Your task to perform on an android device: Open the phone app and click the voicemail tab. Image 0: 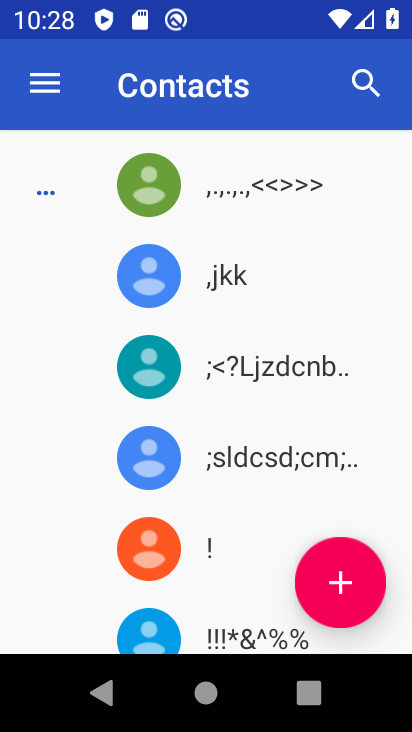
Step 0: press home button
Your task to perform on an android device: Open the phone app and click the voicemail tab. Image 1: 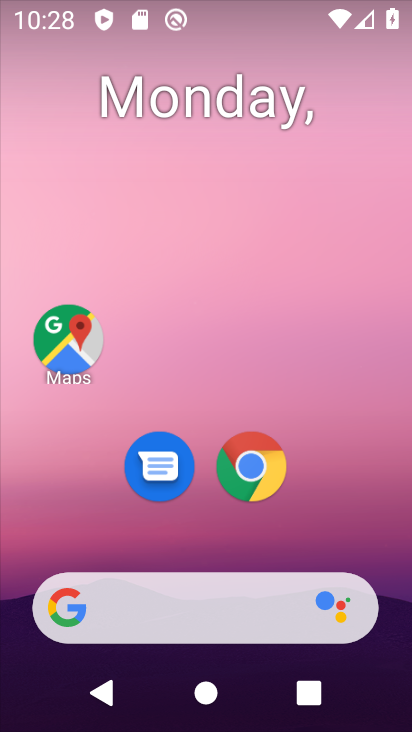
Step 1: drag from (332, 463) to (304, 25)
Your task to perform on an android device: Open the phone app and click the voicemail tab. Image 2: 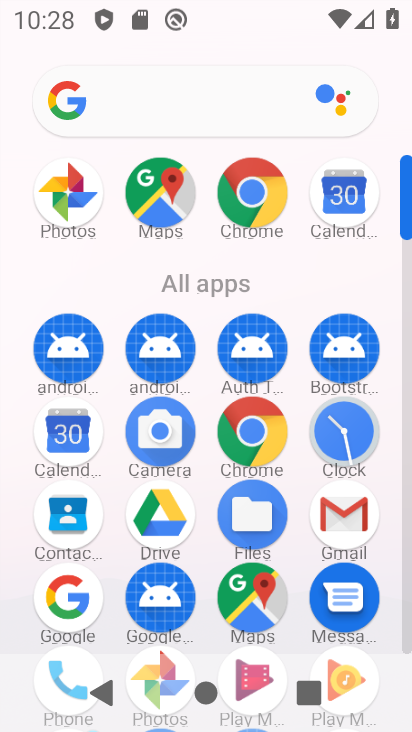
Step 2: click (72, 678)
Your task to perform on an android device: Open the phone app and click the voicemail tab. Image 3: 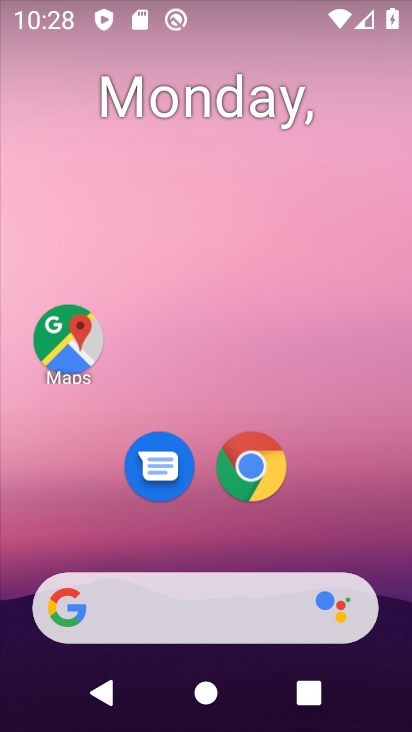
Step 3: press home button
Your task to perform on an android device: Open the phone app and click the voicemail tab. Image 4: 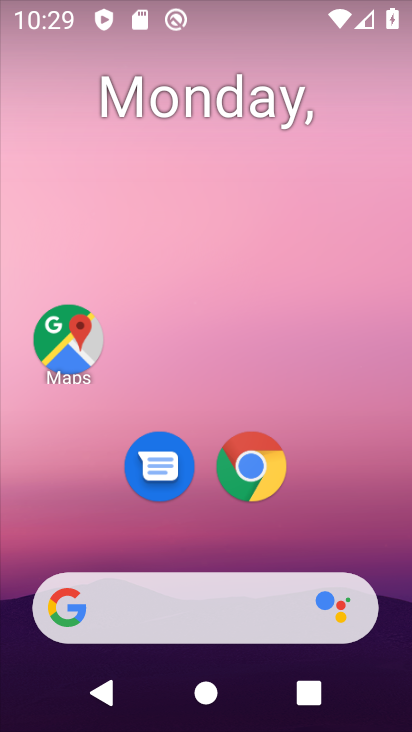
Step 4: drag from (363, 411) to (406, 108)
Your task to perform on an android device: Open the phone app and click the voicemail tab. Image 5: 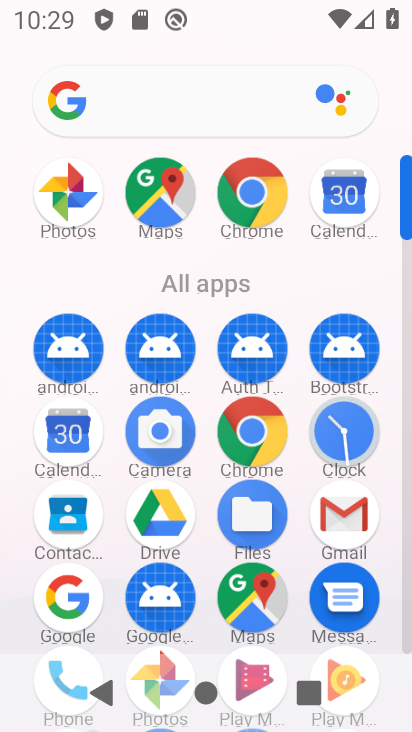
Step 5: click (58, 670)
Your task to perform on an android device: Open the phone app and click the voicemail tab. Image 6: 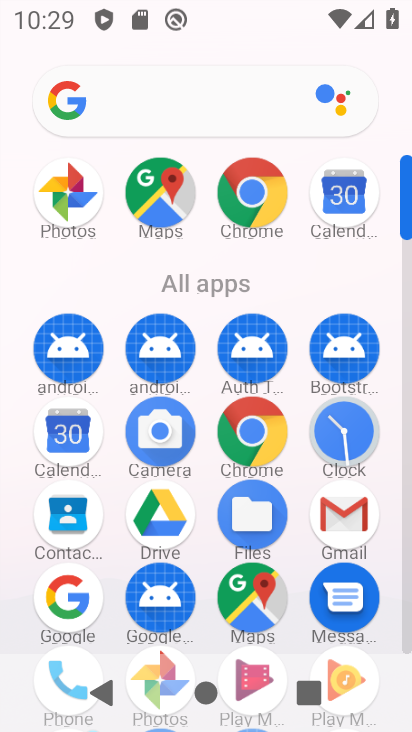
Step 6: drag from (16, 604) to (73, 199)
Your task to perform on an android device: Open the phone app and click the voicemail tab. Image 7: 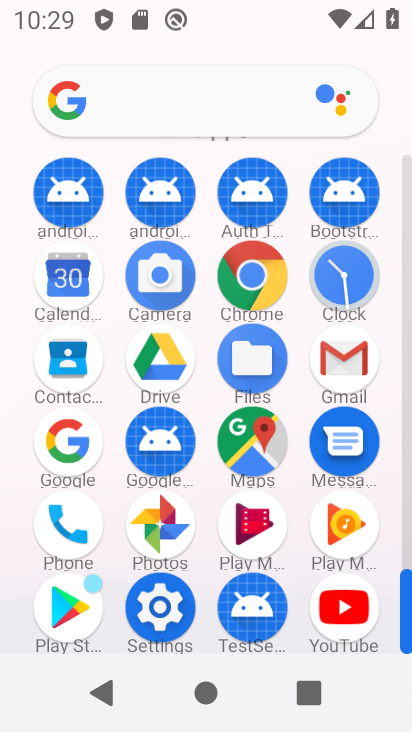
Step 7: click (69, 514)
Your task to perform on an android device: Open the phone app and click the voicemail tab. Image 8: 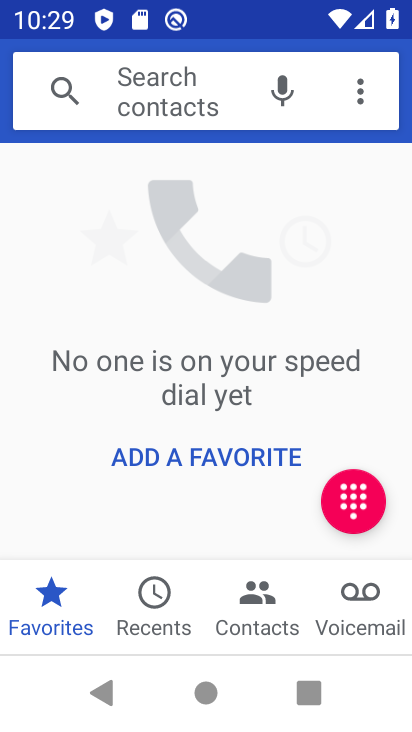
Step 8: click (346, 598)
Your task to perform on an android device: Open the phone app and click the voicemail tab. Image 9: 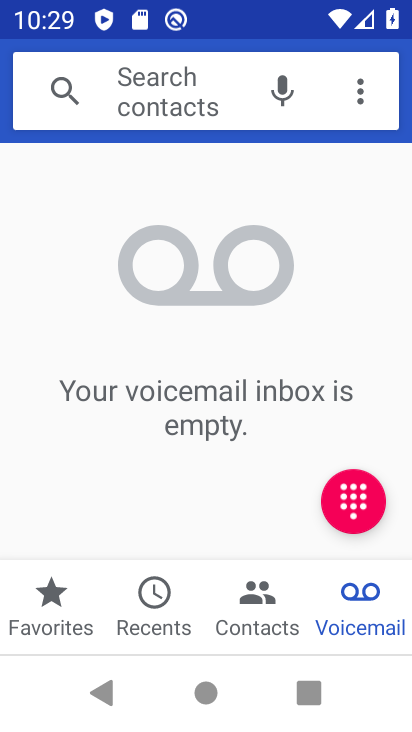
Step 9: task complete